Your task to perform on an android device: turn on showing notifications on the lock screen Image 0: 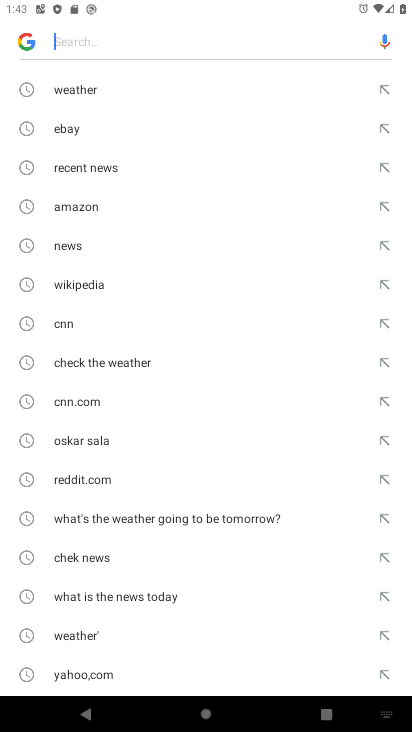
Step 0: press home button
Your task to perform on an android device: turn on showing notifications on the lock screen Image 1: 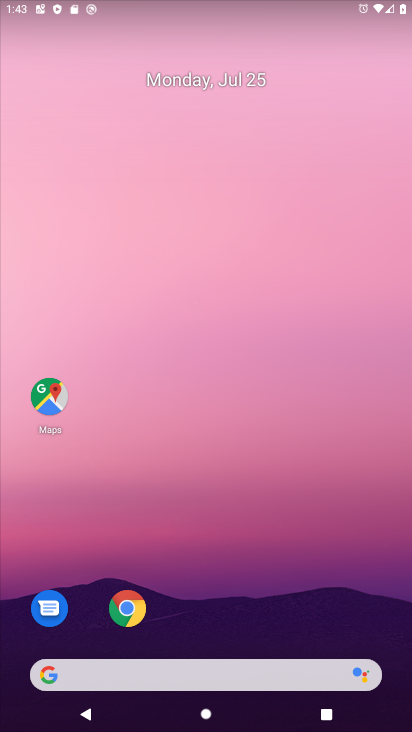
Step 1: drag from (271, 629) to (220, 96)
Your task to perform on an android device: turn on showing notifications on the lock screen Image 2: 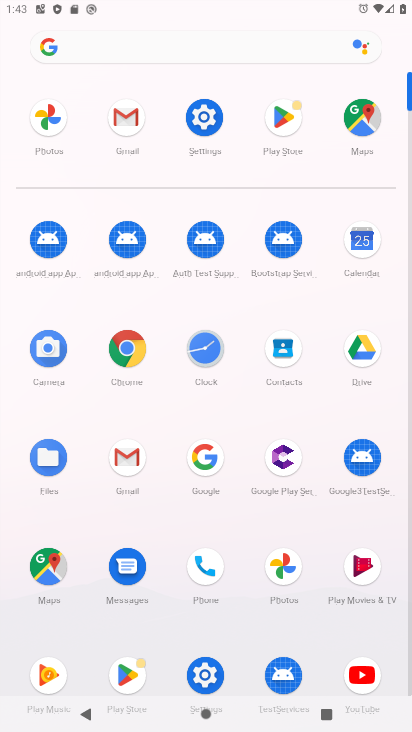
Step 2: click (210, 117)
Your task to perform on an android device: turn on showing notifications on the lock screen Image 3: 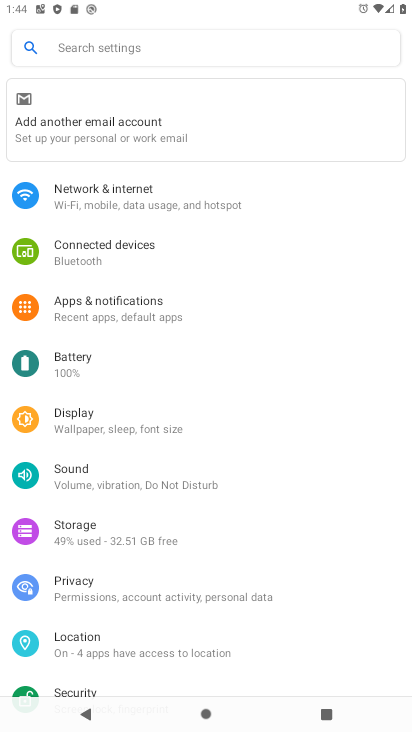
Step 3: click (114, 312)
Your task to perform on an android device: turn on showing notifications on the lock screen Image 4: 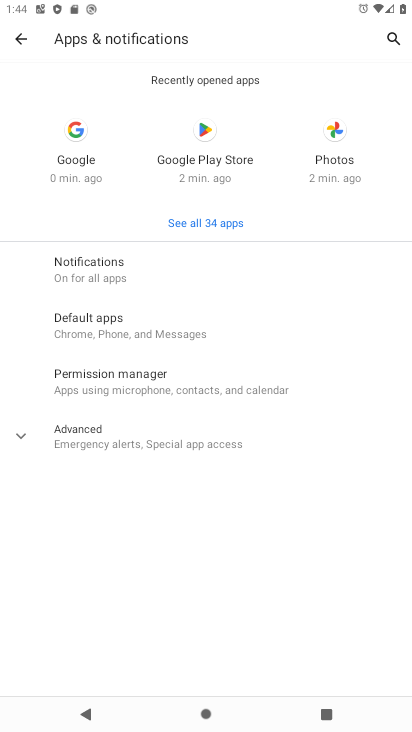
Step 4: click (111, 279)
Your task to perform on an android device: turn on showing notifications on the lock screen Image 5: 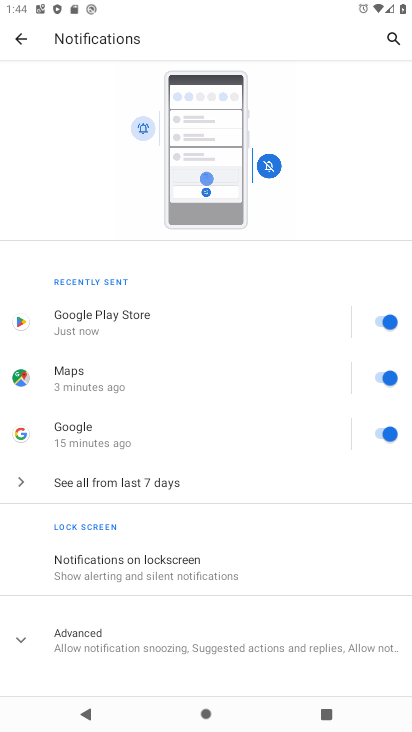
Step 5: click (193, 559)
Your task to perform on an android device: turn on showing notifications on the lock screen Image 6: 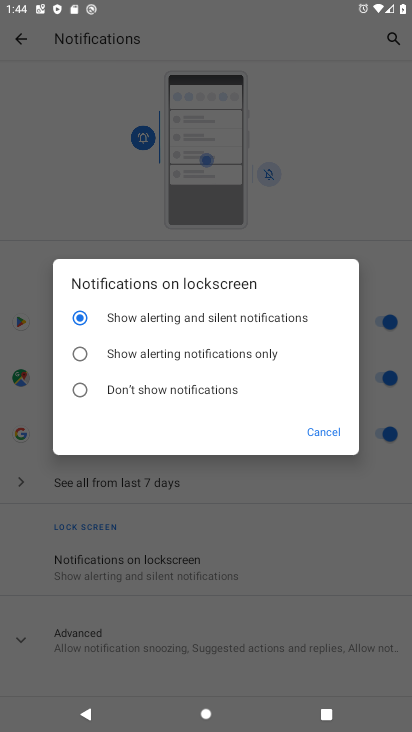
Step 6: click (203, 353)
Your task to perform on an android device: turn on showing notifications on the lock screen Image 7: 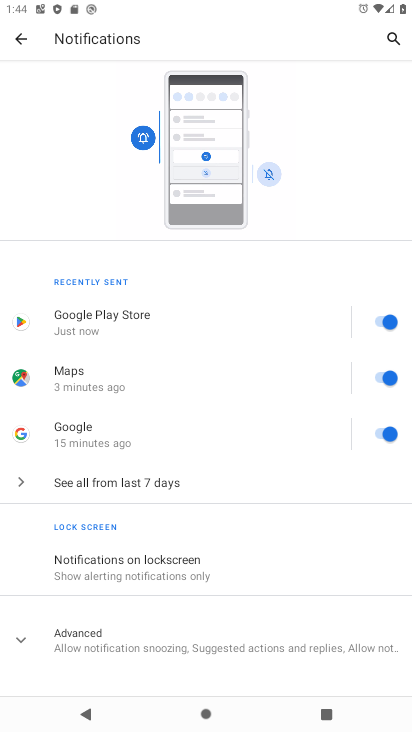
Step 7: task complete